Your task to perform on an android device: toggle data saver in the chrome app Image 0: 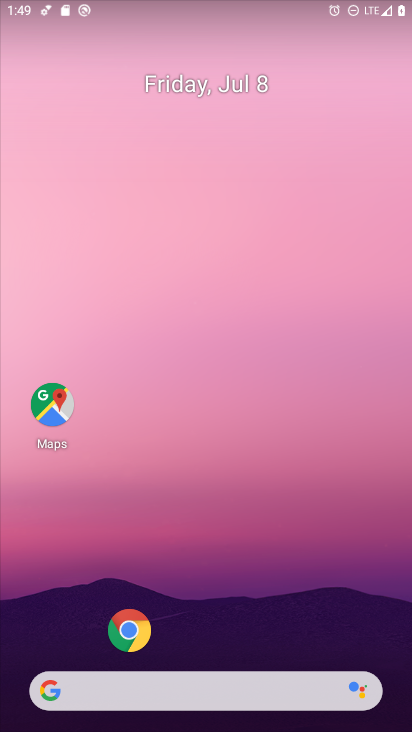
Step 0: drag from (311, 688) to (328, 60)
Your task to perform on an android device: toggle data saver in the chrome app Image 1: 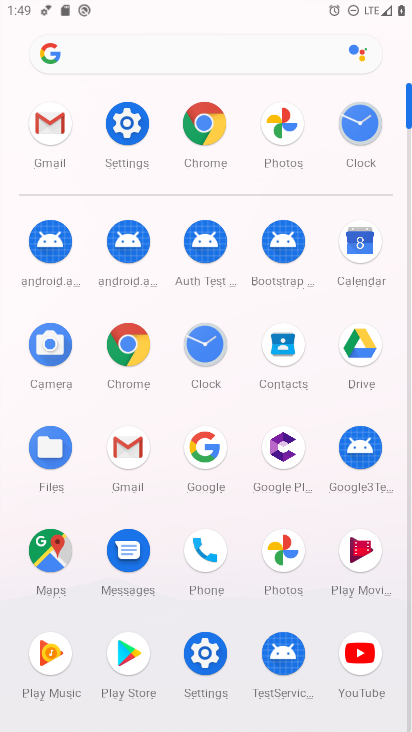
Step 1: click (117, 355)
Your task to perform on an android device: toggle data saver in the chrome app Image 2: 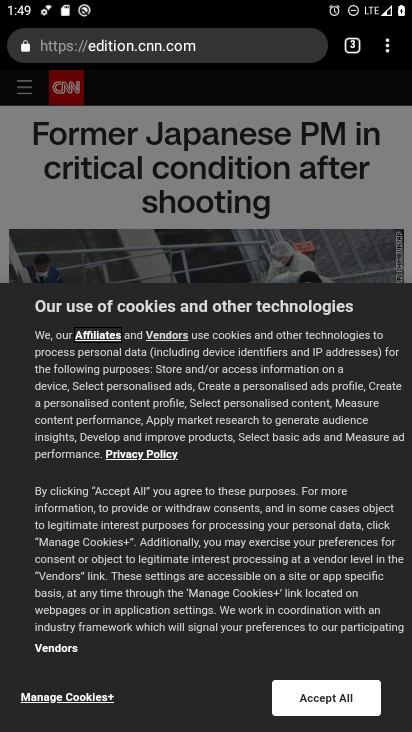
Step 2: click (384, 38)
Your task to perform on an android device: toggle data saver in the chrome app Image 3: 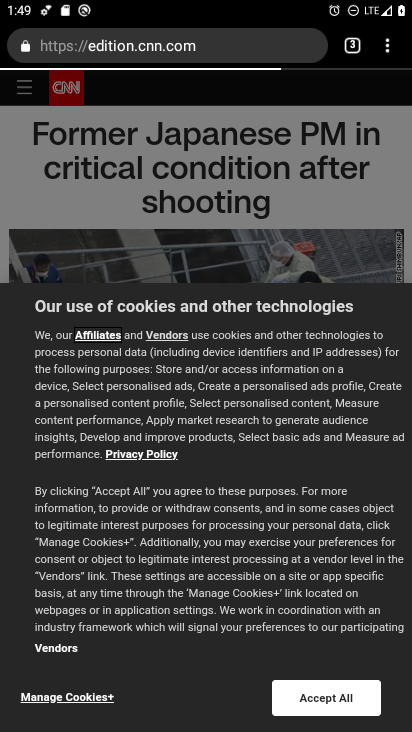
Step 3: drag from (390, 45) to (227, 516)
Your task to perform on an android device: toggle data saver in the chrome app Image 4: 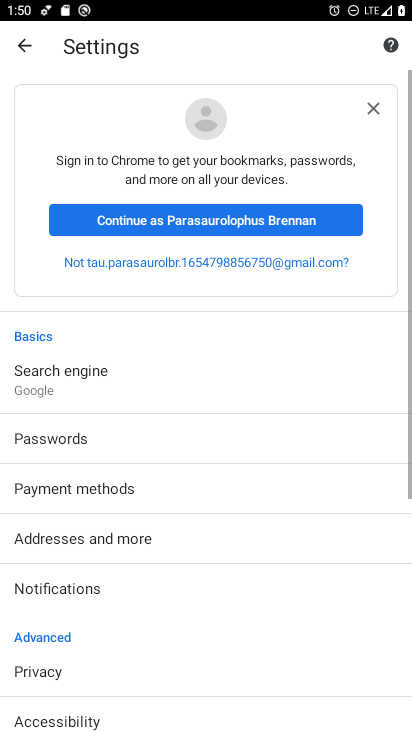
Step 4: drag from (237, 666) to (293, 330)
Your task to perform on an android device: toggle data saver in the chrome app Image 5: 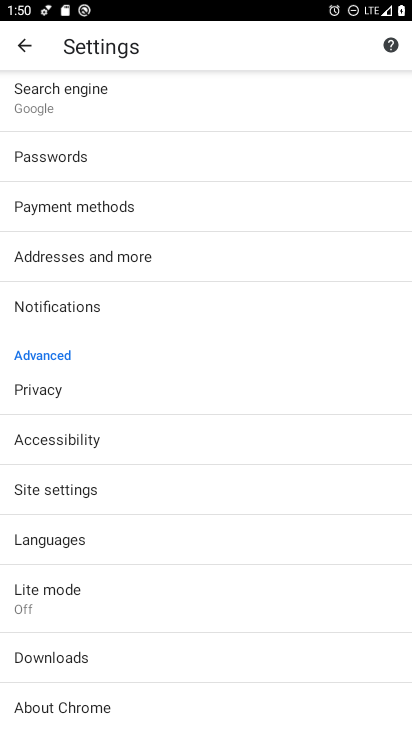
Step 5: click (84, 609)
Your task to perform on an android device: toggle data saver in the chrome app Image 6: 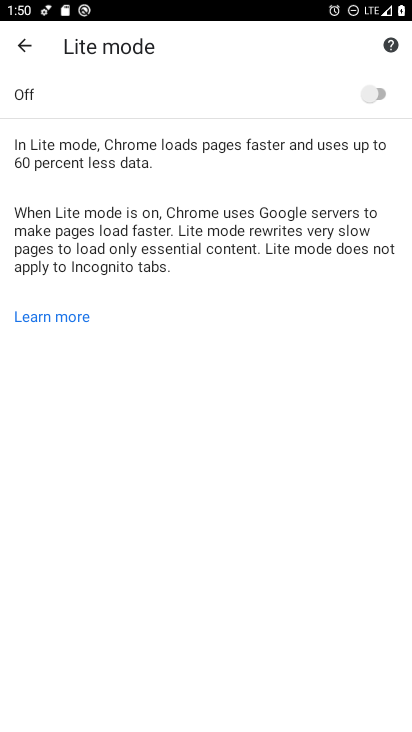
Step 6: click (385, 90)
Your task to perform on an android device: toggle data saver in the chrome app Image 7: 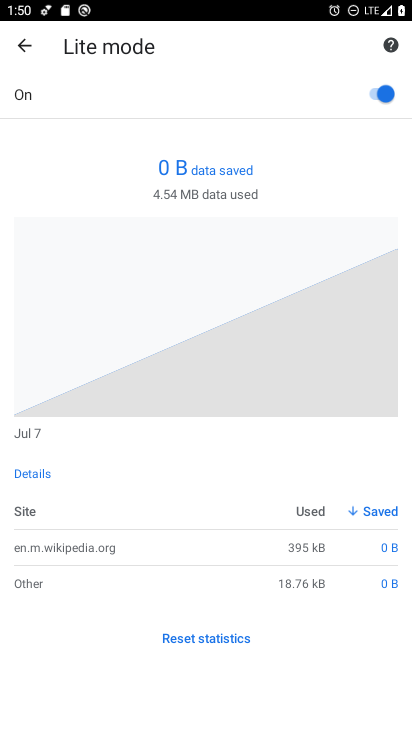
Step 7: task complete